Your task to perform on an android device: Open Reddit.com Image 0: 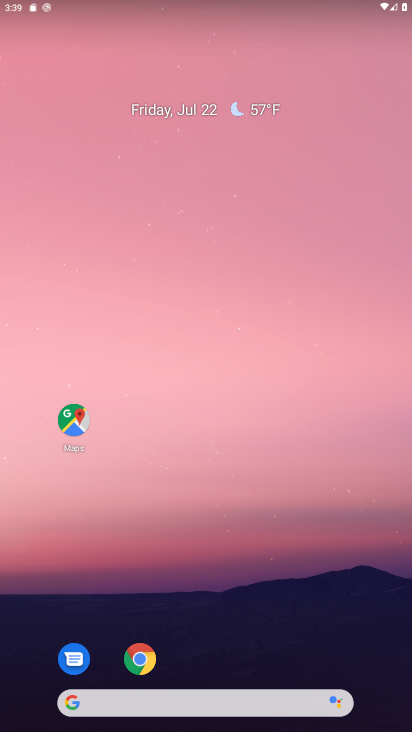
Step 0: click (134, 662)
Your task to perform on an android device: Open Reddit.com Image 1: 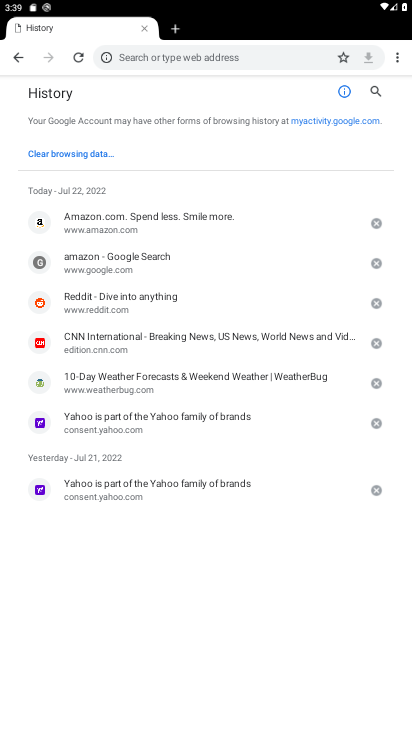
Step 1: click (165, 48)
Your task to perform on an android device: Open Reddit.com Image 2: 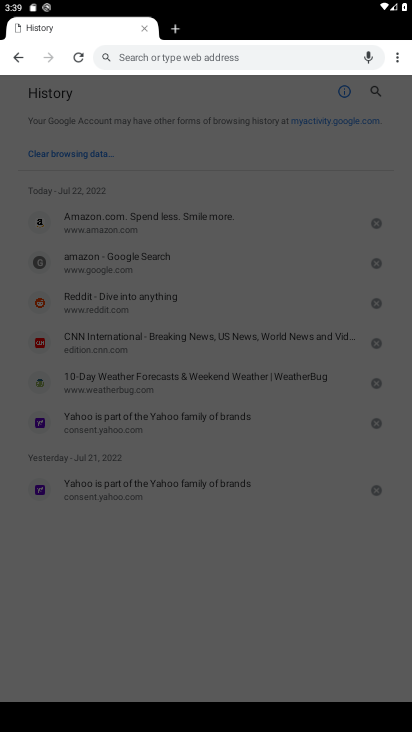
Step 2: type "reddit.com"
Your task to perform on an android device: Open Reddit.com Image 3: 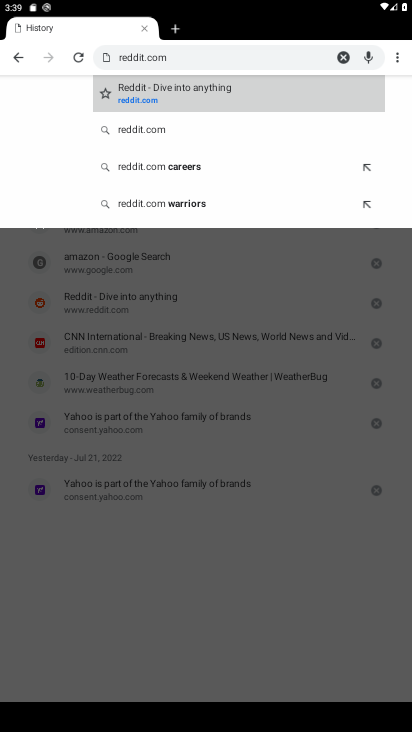
Step 3: click (257, 86)
Your task to perform on an android device: Open Reddit.com Image 4: 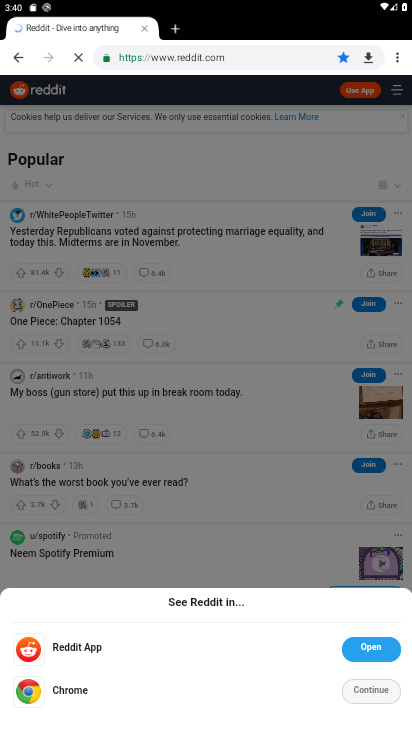
Step 4: task complete